Your task to perform on an android device: install app "Lyft - Rideshare, Bikes, Scooters & Transit" Image 0: 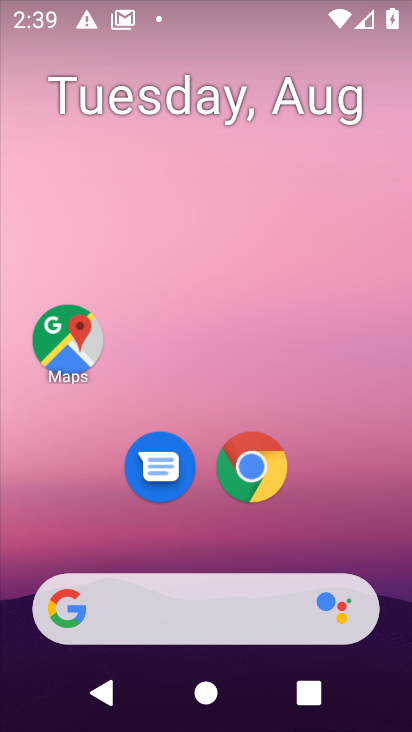
Step 0: drag from (184, 547) to (274, 6)
Your task to perform on an android device: install app "Lyft - Rideshare, Bikes, Scooters & Transit" Image 1: 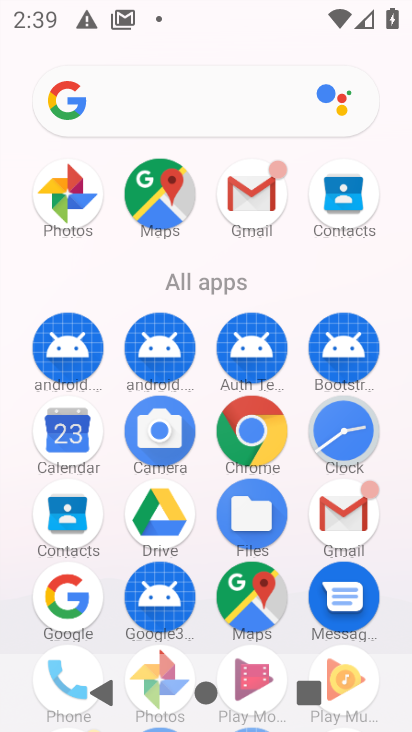
Step 1: task complete